Your task to perform on an android device: stop showing notifications on the lock screen Image 0: 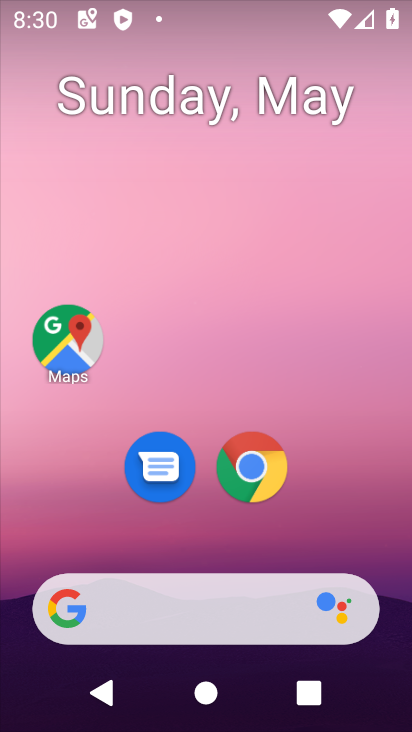
Step 0: drag from (222, 545) to (251, 158)
Your task to perform on an android device: stop showing notifications on the lock screen Image 1: 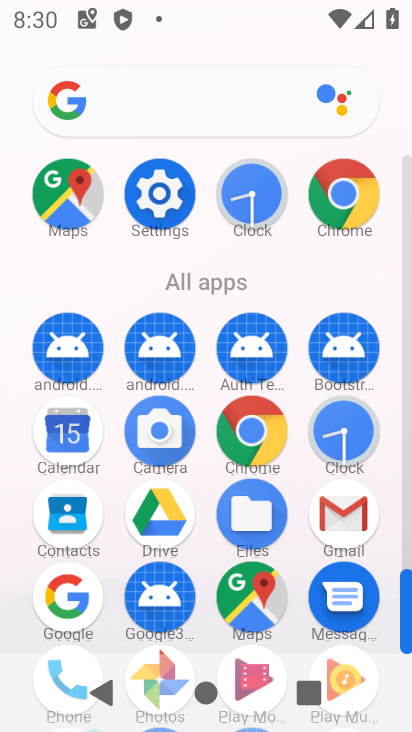
Step 1: click (172, 200)
Your task to perform on an android device: stop showing notifications on the lock screen Image 2: 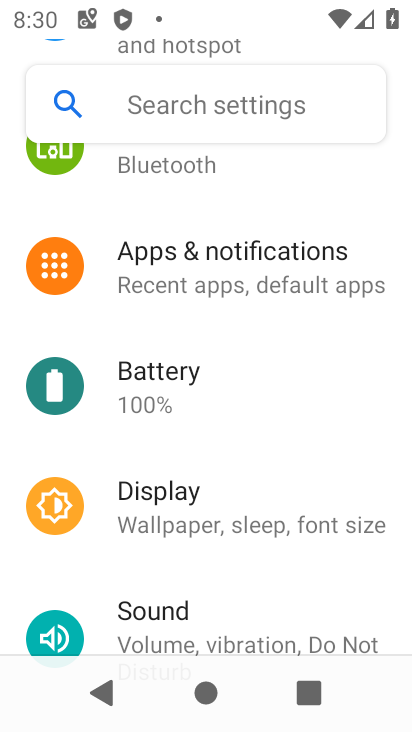
Step 2: click (255, 282)
Your task to perform on an android device: stop showing notifications on the lock screen Image 3: 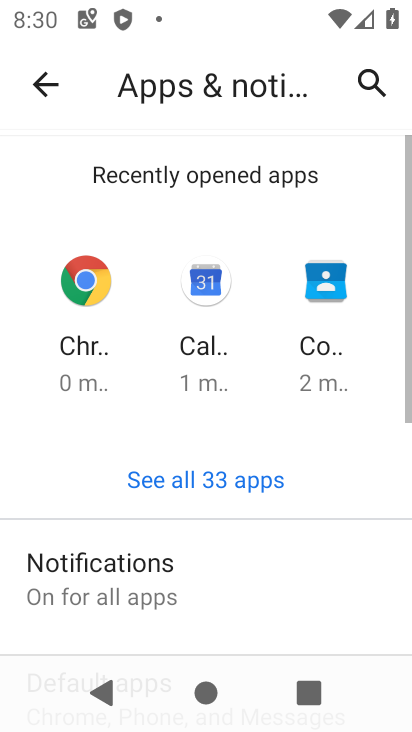
Step 3: click (129, 579)
Your task to perform on an android device: stop showing notifications on the lock screen Image 4: 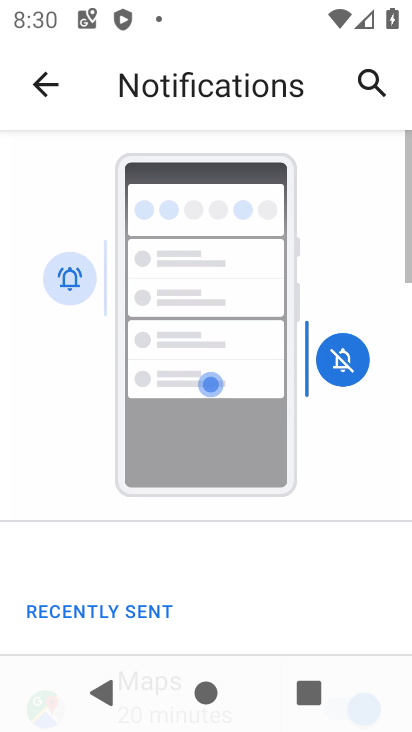
Step 4: drag from (129, 579) to (148, 180)
Your task to perform on an android device: stop showing notifications on the lock screen Image 5: 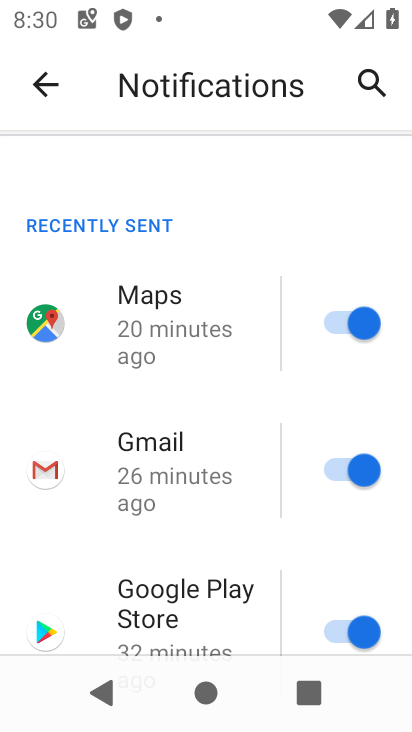
Step 5: drag from (88, 544) to (190, 88)
Your task to perform on an android device: stop showing notifications on the lock screen Image 6: 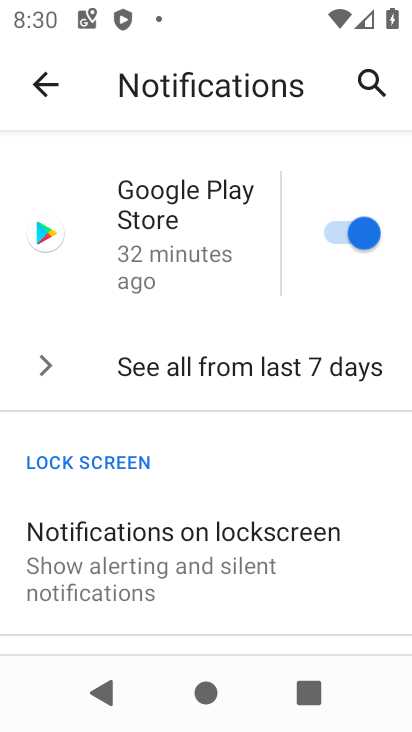
Step 6: click (151, 592)
Your task to perform on an android device: stop showing notifications on the lock screen Image 7: 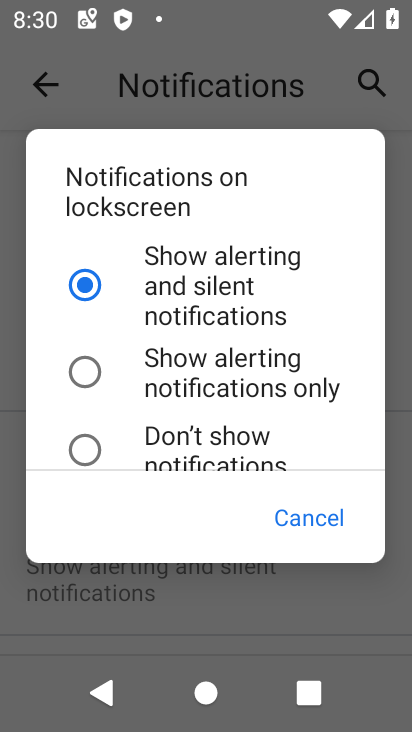
Step 7: click (154, 453)
Your task to perform on an android device: stop showing notifications on the lock screen Image 8: 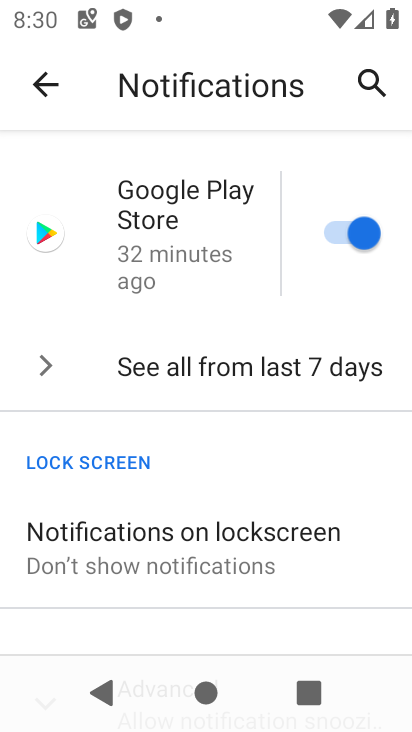
Step 8: task complete